Your task to perform on an android device: set the timer Image 0: 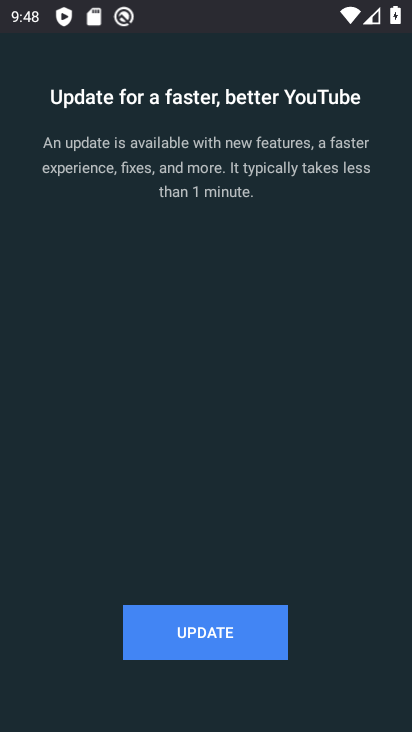
Step 0: press home button
Your task to perform on an android device: set the timer Image 1: 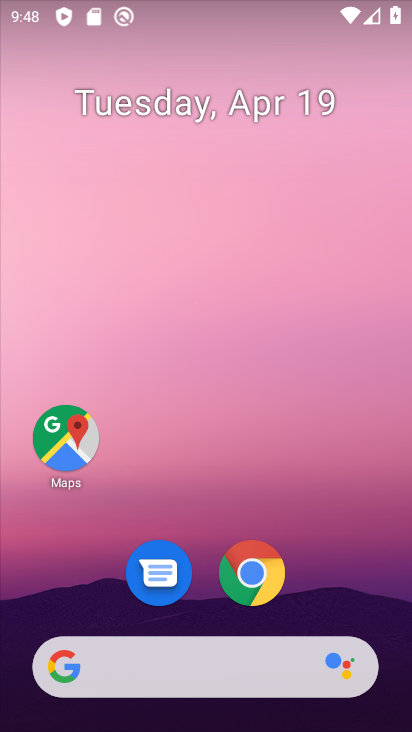
Step 1: drag from (355, 595) to (389, 126)
Your task to perform on an android device: set the timer Image 2: 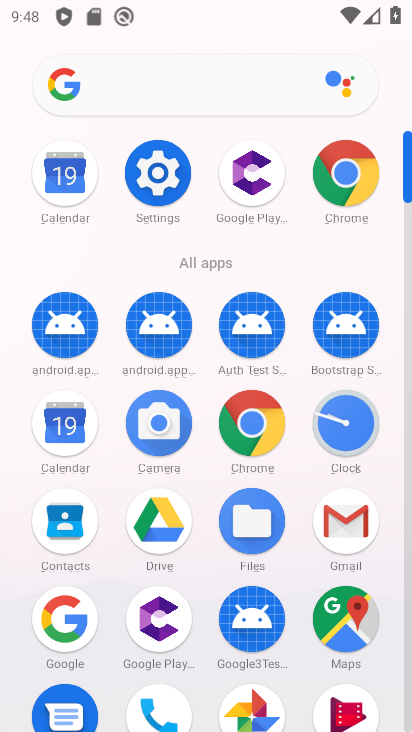
Step 2: click (369, 425)
Your task to perform on an android device: set the timer Image 3: 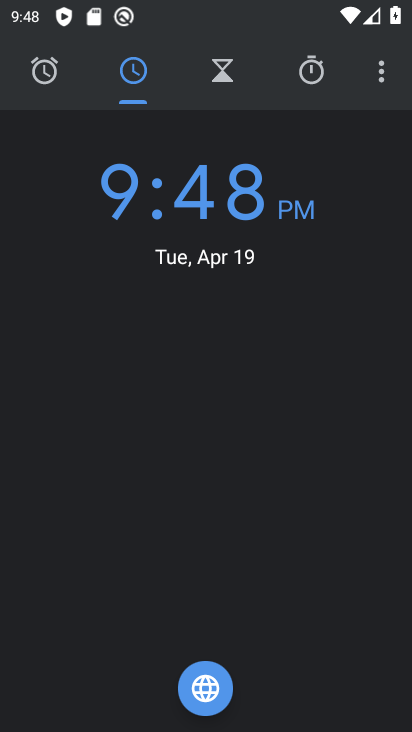
Step 3: click (39, 64)
Your task to perform on an android device: set the timer Image 4: 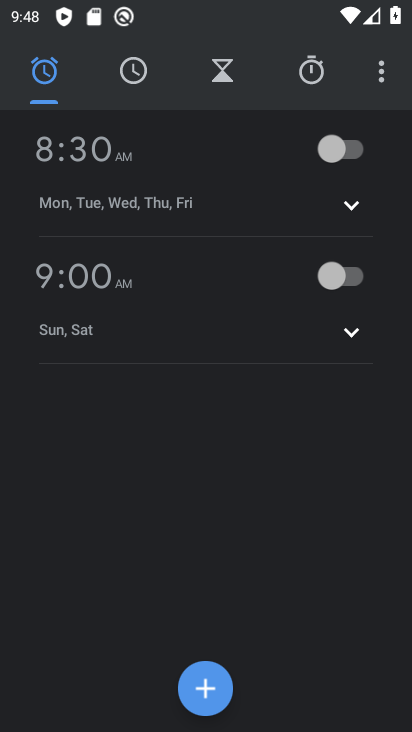
Step 4: task complete